Your task to perform on an android device: open a new tab in the chrome app Image 0: 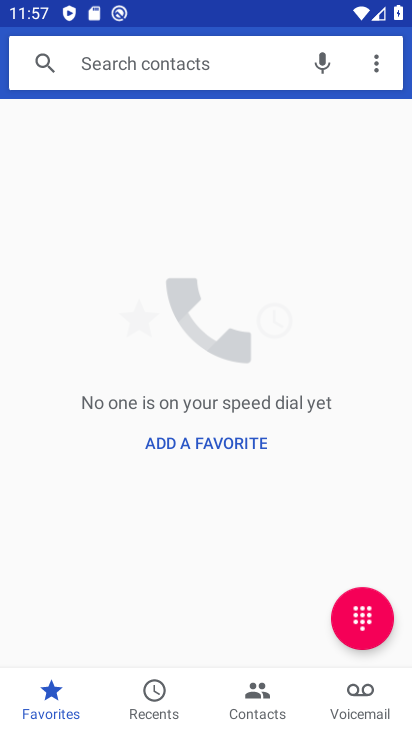
Step 0: press back button
Your task to perform on an android device: open a new tab in the chrome app Image 1: 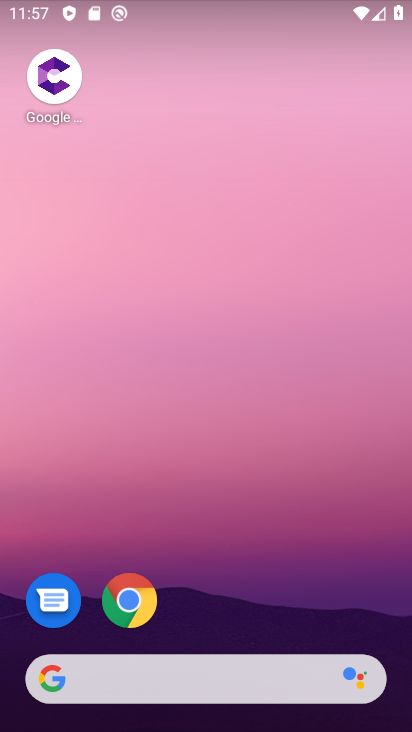
Step 1: drag from (265, 579) to (221, 78)
Your task to perform on an android device: open a new tab in the chrome app Image 2: 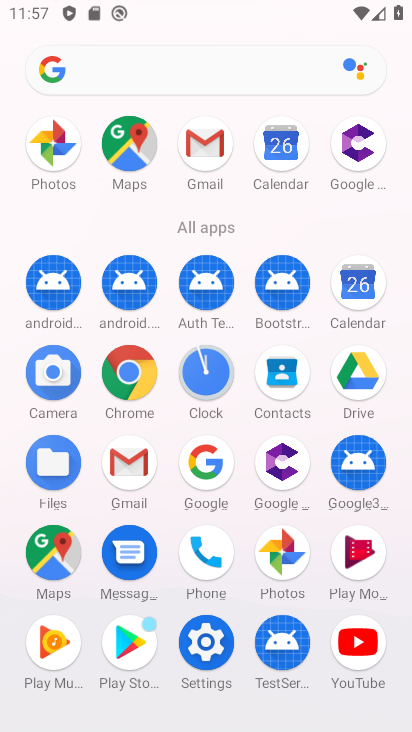
Step 2: drag from (6, 532) to (21, 254)
Your task to perform on an android device: open a new tab in the chrome app Image 3: 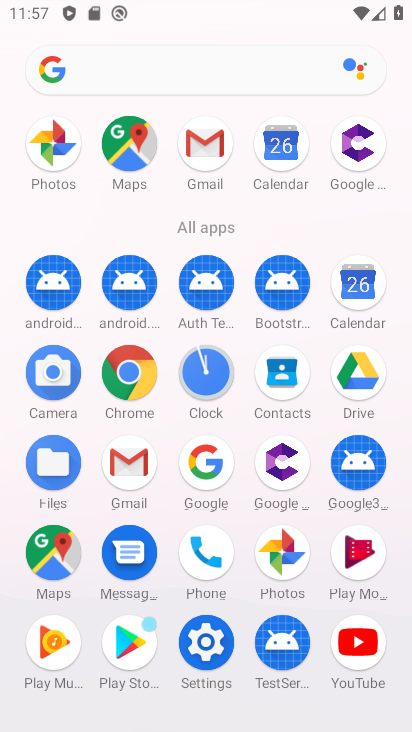
Step 3: click (125, 372)
Your task to perform on an android device: open a new tab in the chrome app Image 4: 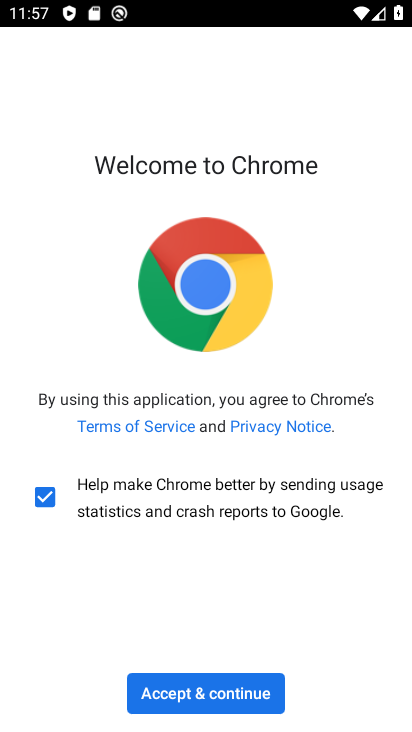
Step 4: click (212, 693)
Your task to perform on an android device: open a new tab in the chrome app Image 5: 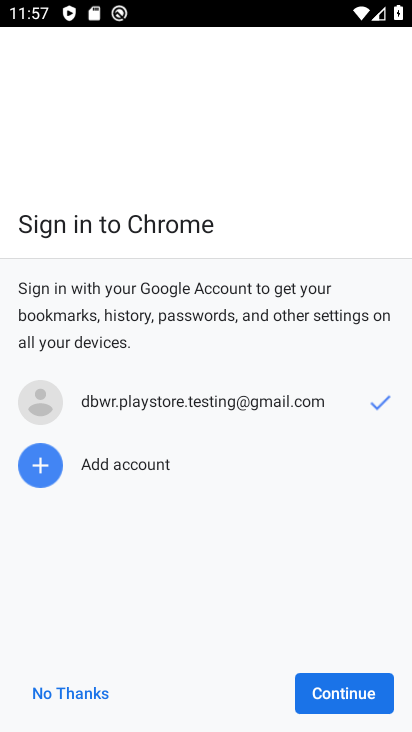
Step 5: click (319, 697)
Your task to perform on an android device: open a new tab in the chrome app Image 6: 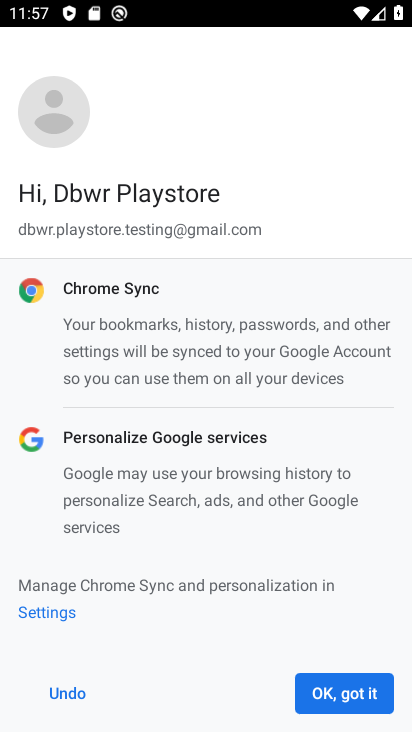
Step 6: click (335, 683)
Your task to perform on an android device: open a new tab in the chrome app Image 7: 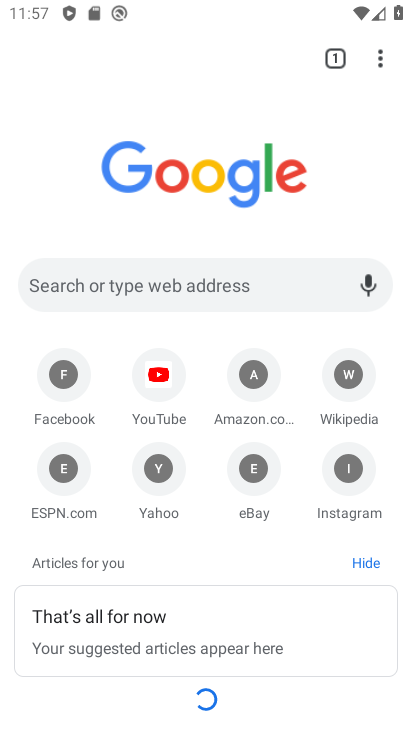
Step 7: task complete